Your task to perform on an android device: change alarm snooze length Image 0: 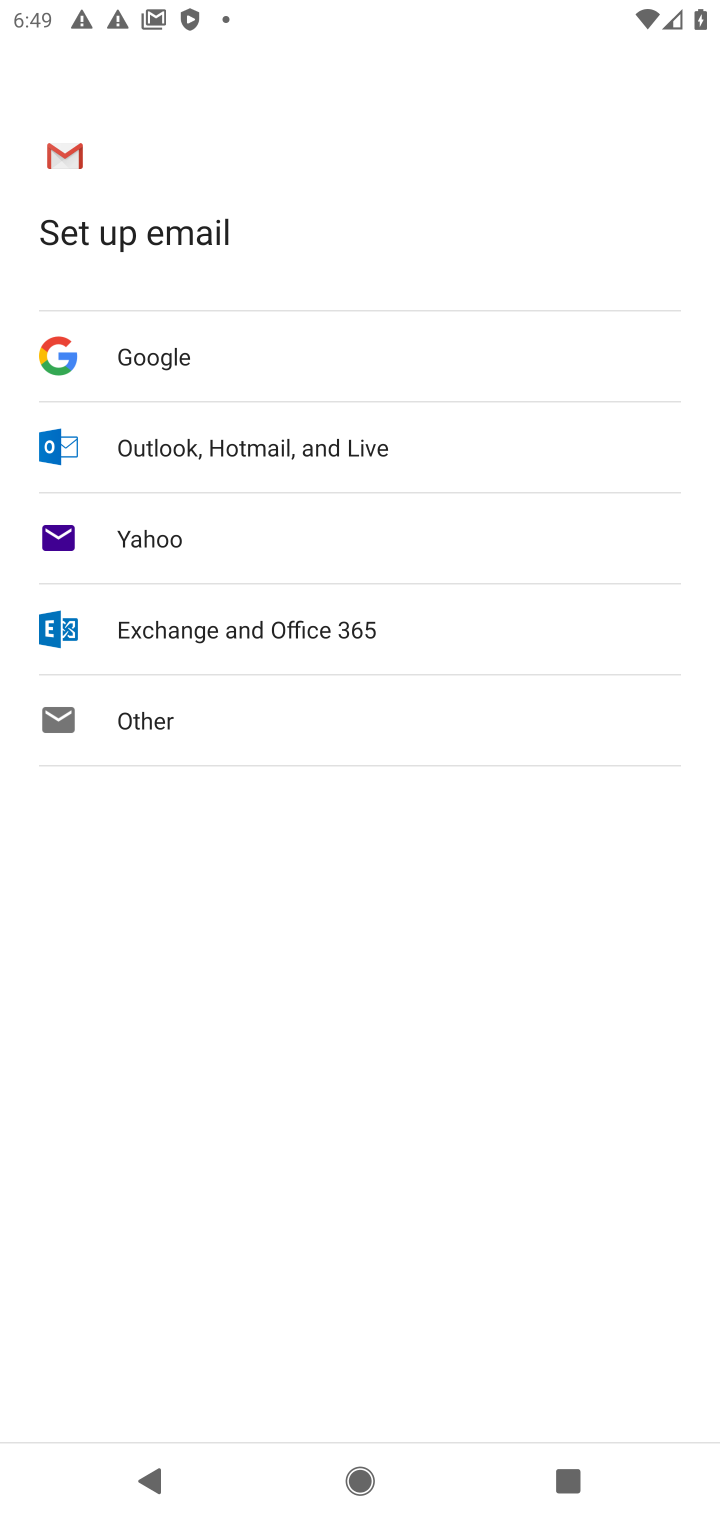
Step 0: press home button
Your task to perform on an android device: change alarm snooze length Image 1: 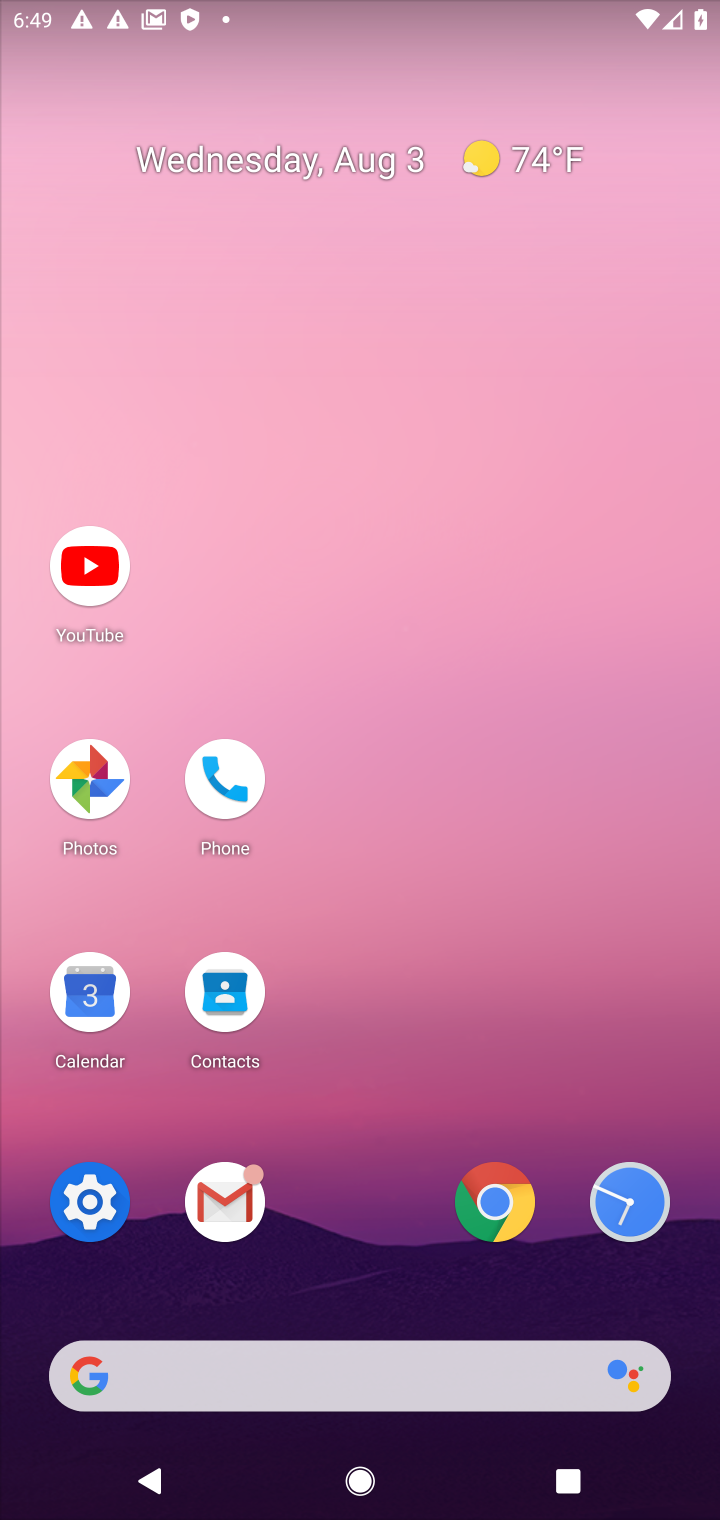
Step 1: click (629, 1202)
Your task to perform on an android device: change alarm snooze length Image 2: 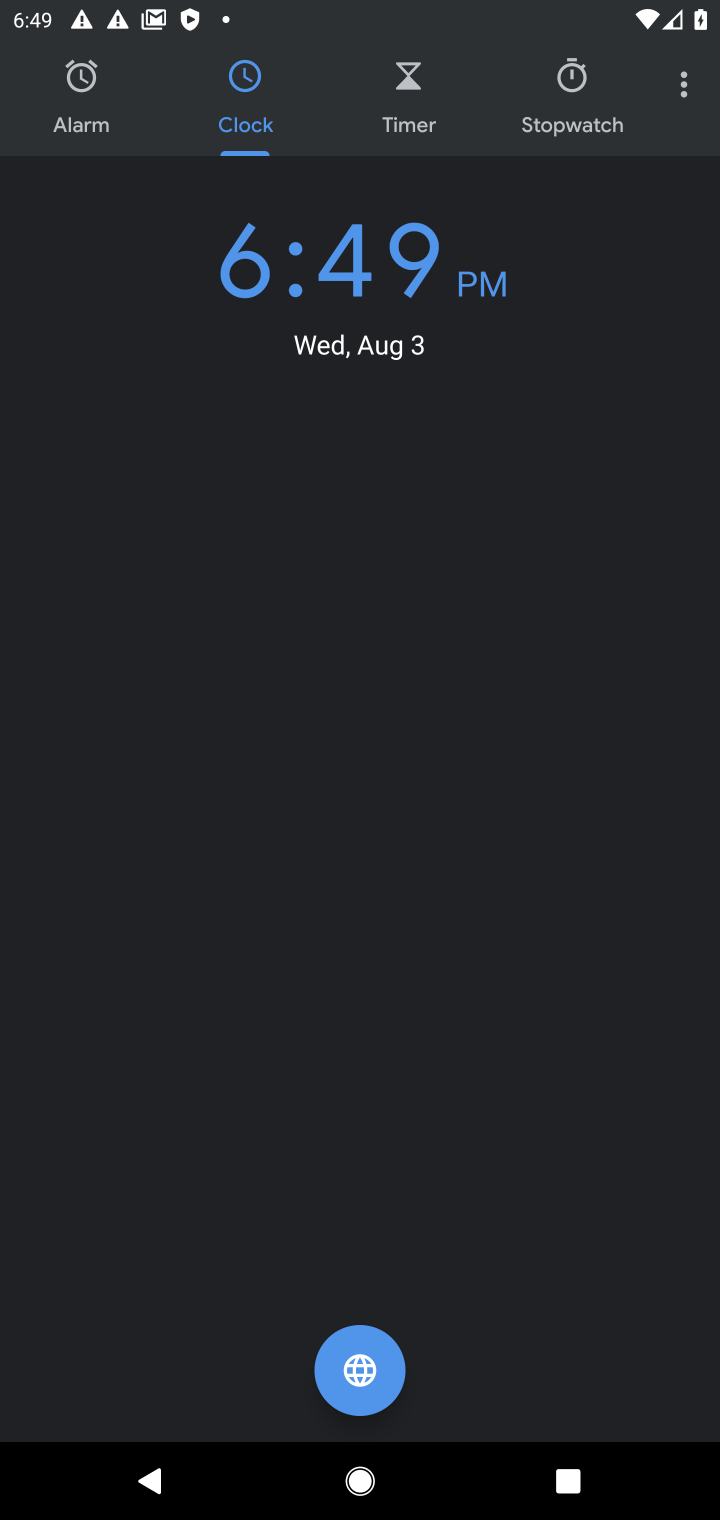
Step 2: click (685, 94)
Your task to perform on an android device: change alarm snooze length Image 3: 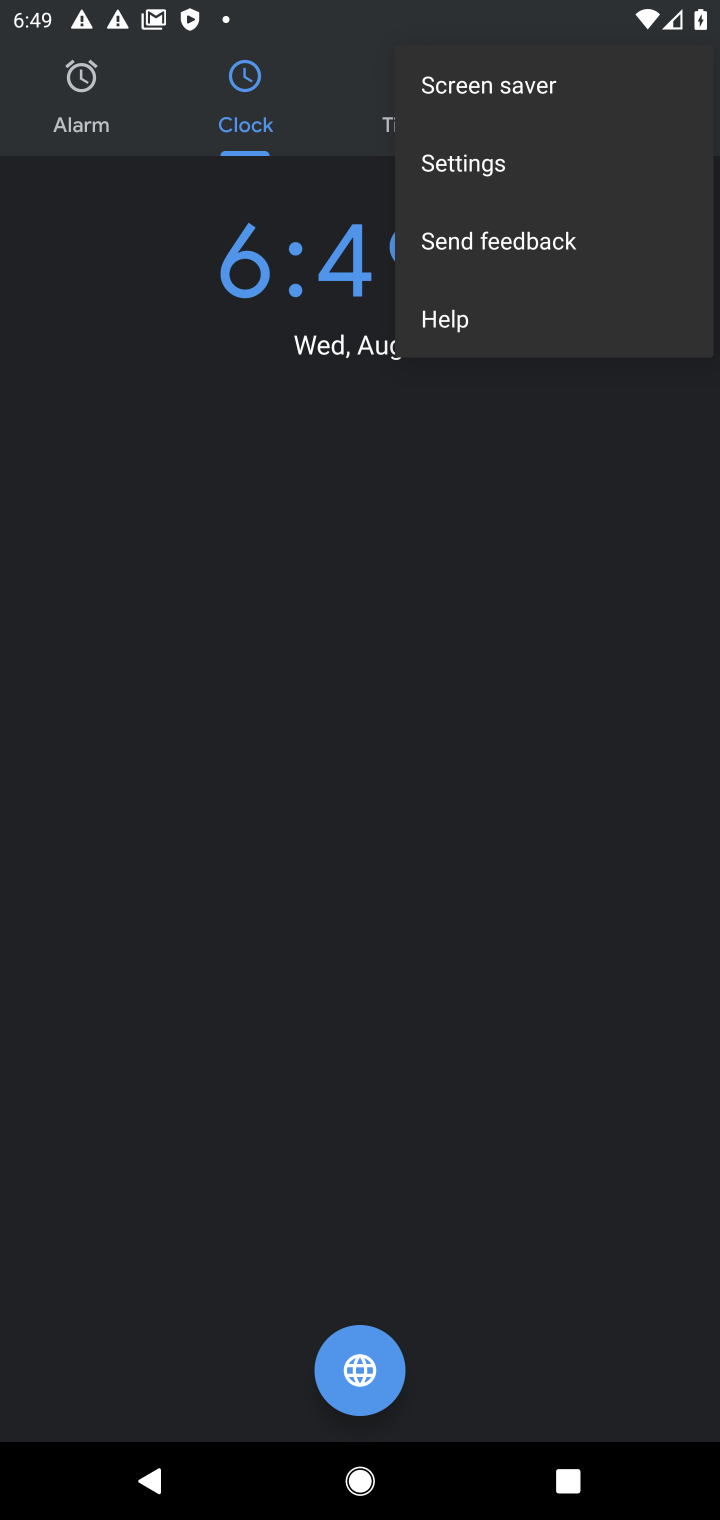
Step 3: click (466, 171)
Your task to perform on an android device: change alarm snooze length Image 4: 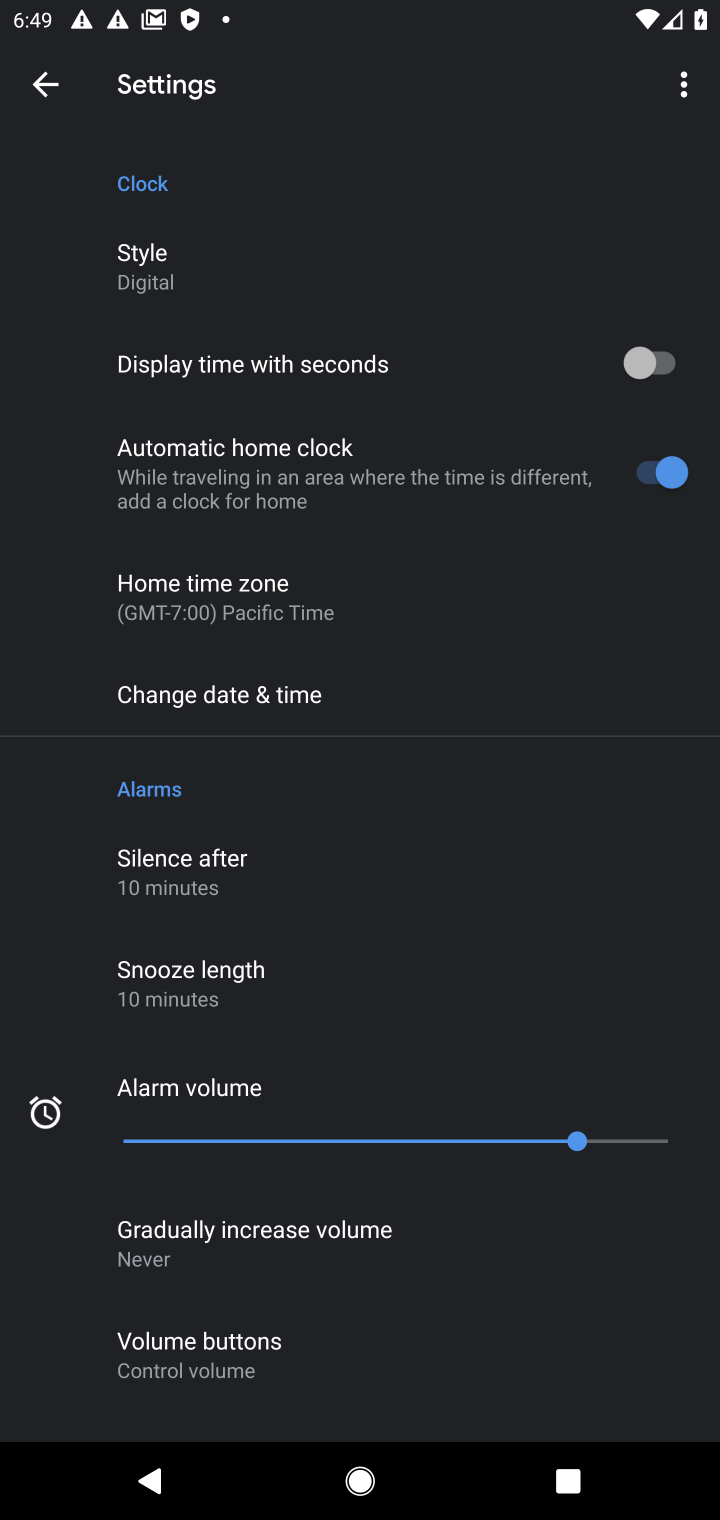
Step 4: click (210, 980)
Your task to perform on an android device: change alarm snooze length Image 5: 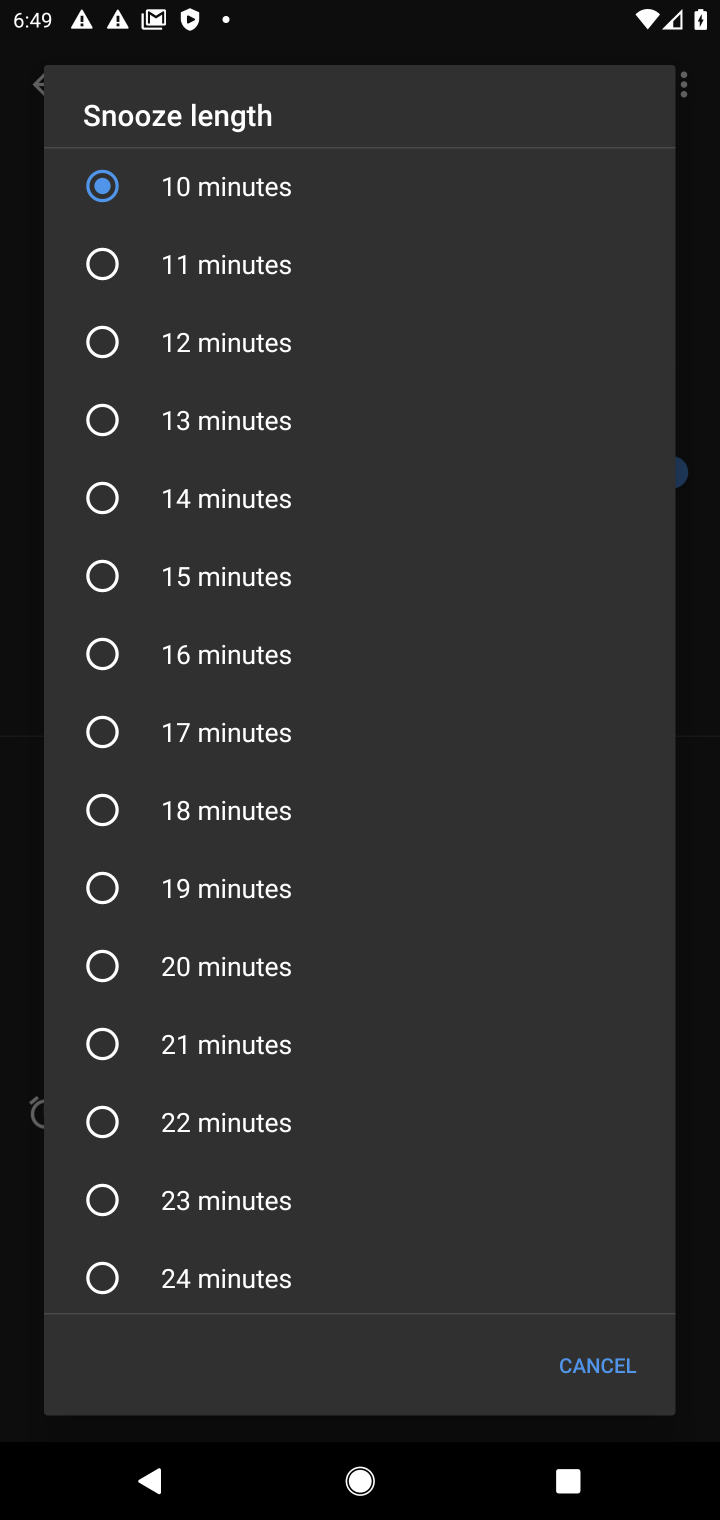
Step 5: click (109, 427)
Your task to perform on an android device: change alarm snooze length Image 6: 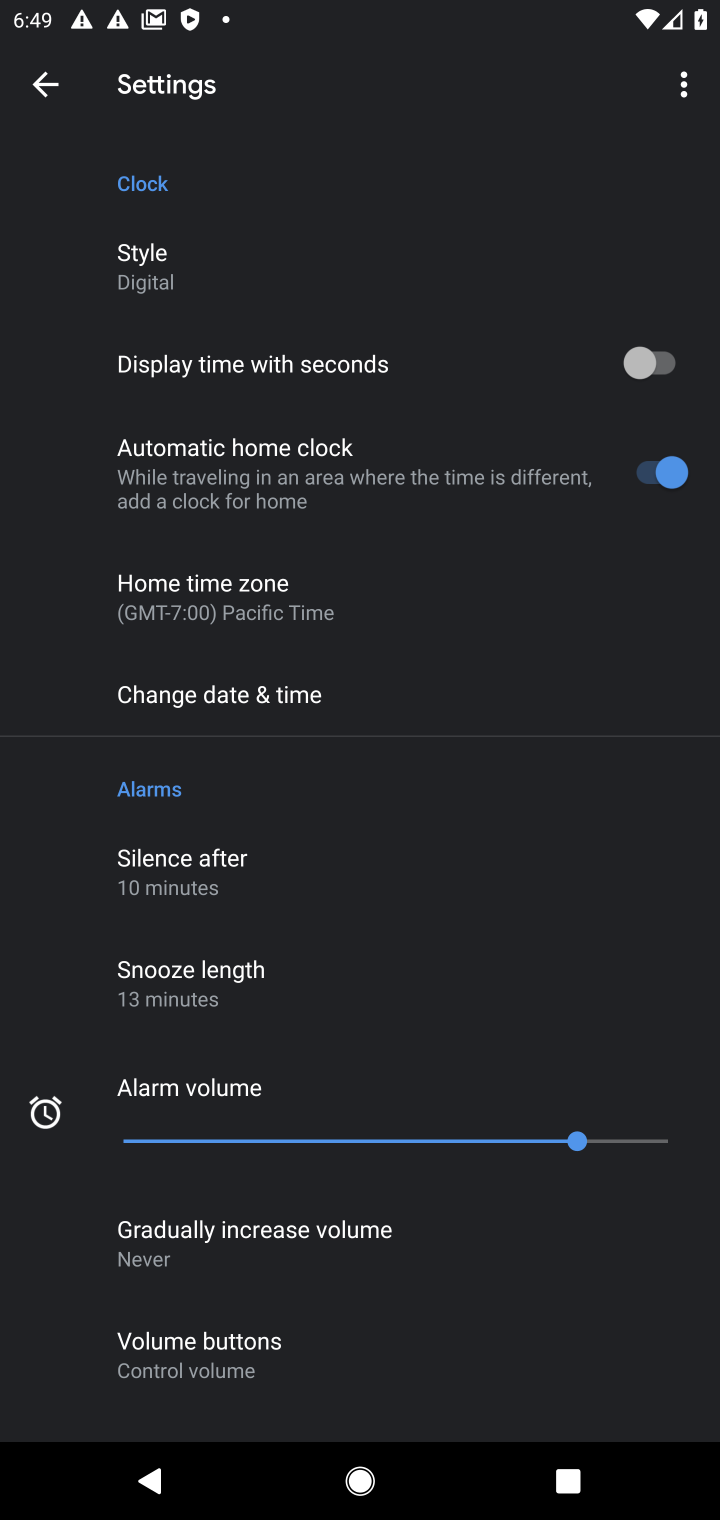
Step 6: task complete